Your task to perform on an android device: Clear the shopping cart on amazon. Image 0: 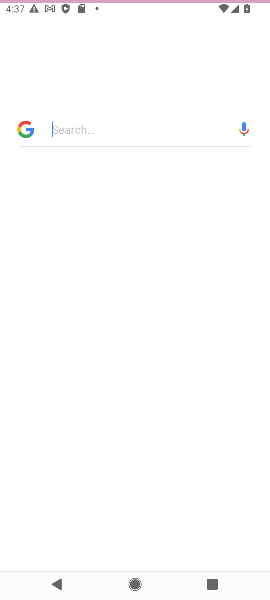
Step 0: click (95, 38)
Your task to perform on an android device: Clear the shopping cart on amazon. Image 1: 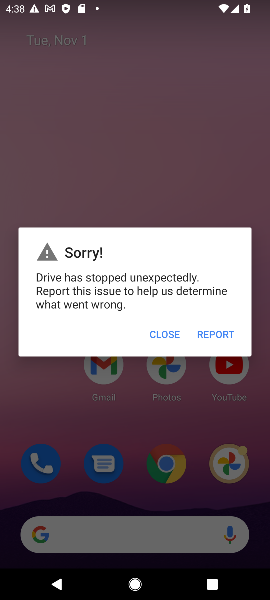
Step 1: press home button
Your task to perform on an android device: Clear the shopping cart on amazon. Image 2: 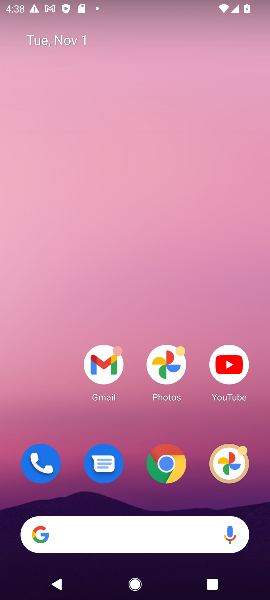
Step 2: click (165, 468)
Your task to perform on an android device: Clear the shopping cart on amazon. Image 3: 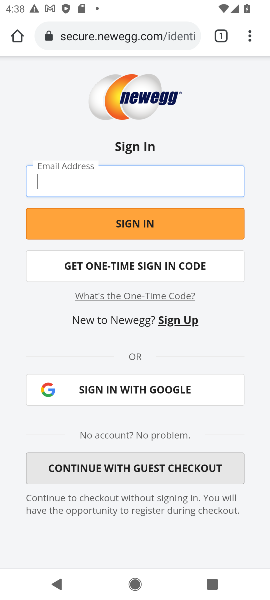
Step 3: click (168, 38)
Your task to perform on an android device: Clear the shopping cart on amazon. Image 4: 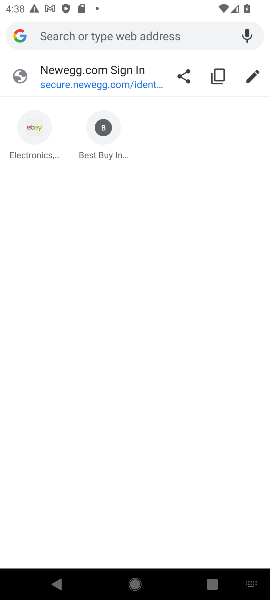
Step 4: type "amazon"
Your task to perform on an android device: Clear the shopping cart on amazon. Image 5: 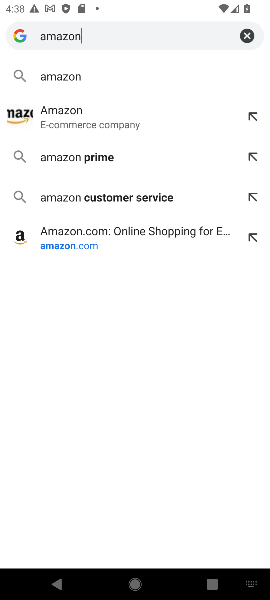
Step 5: click (77, 78)
Your task to perform on an android device: Clear the shopping cart on amazon. Image 6: 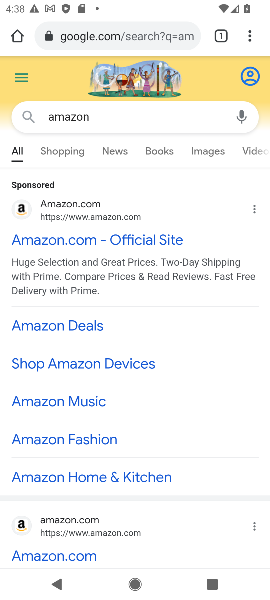
Step 6: click (60, 557)
Your task to perform on an android device: Clear the shopping cart on amazon. Image 7: 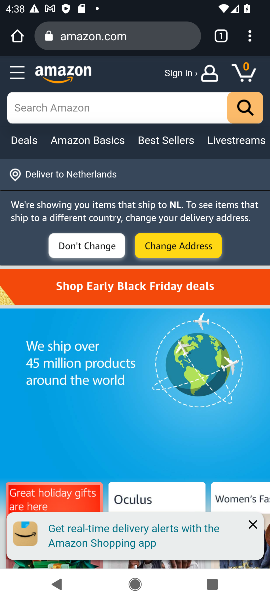
Step 7: click (242, 70)
Your task to perform on an android device: Clear the shopping cart on amazon. Image 8: 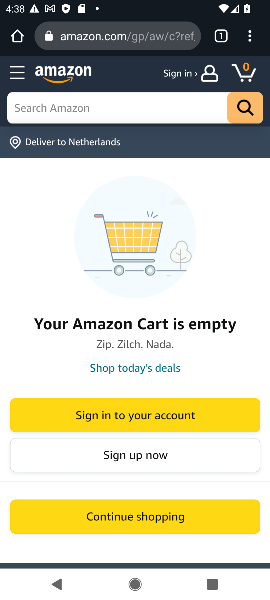
Step 8: task complete